Your task to perform on an android device: find snoozed emails in the gmail app Image 0: 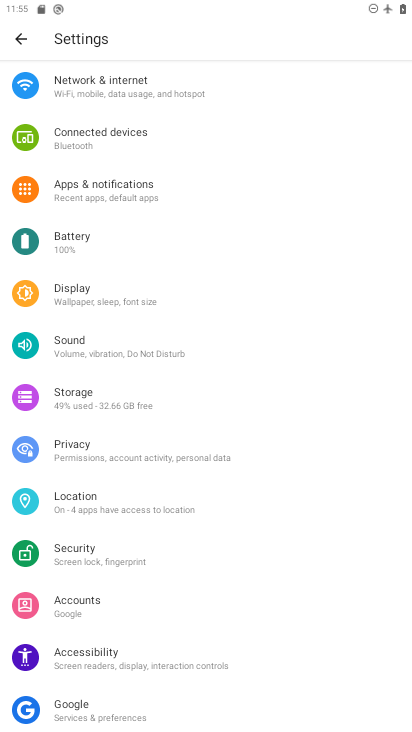
Step 0: press home button
Your task to perform on an android device: find snoozed emails in the gmail app Image 1: 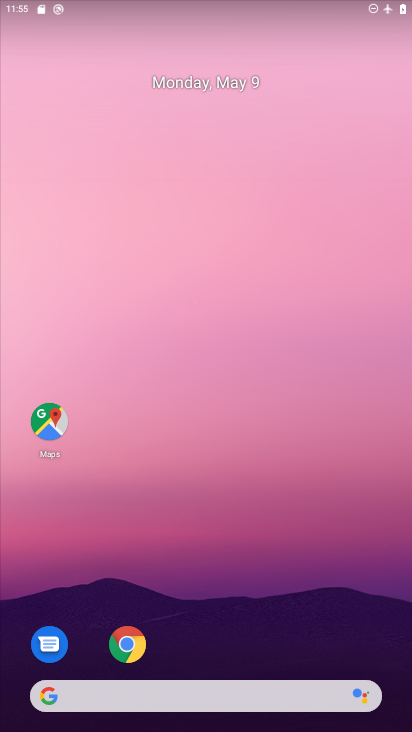
Step 1: drag from (261, 617) to (266, 206)
Your task to perform on an android device: find snoozed emails in the gmail app Image 2: 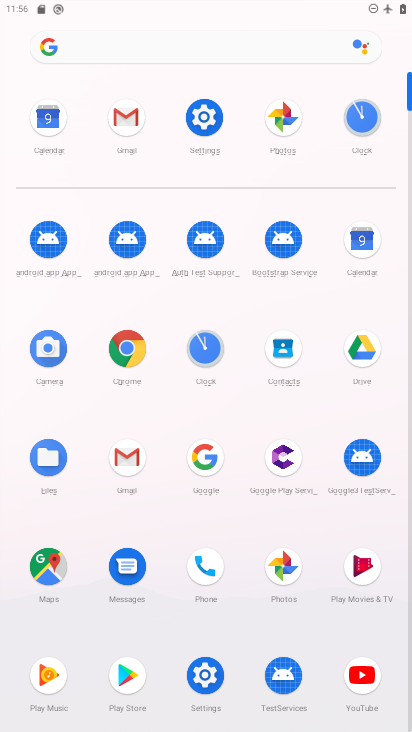
Step 2: click (119, 126)
Your task to perform on an android device: find snoozed emails in the gmail app Image 3: 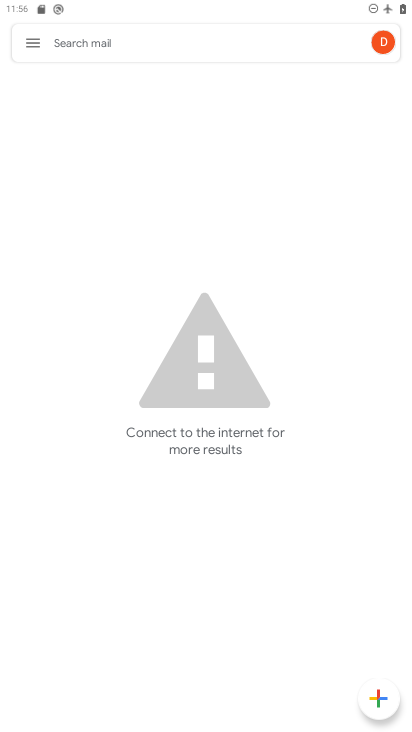
Step 3: click (44, 46)
Your task to perform on an android device: find snoozed emails in the gmail app Image 4: 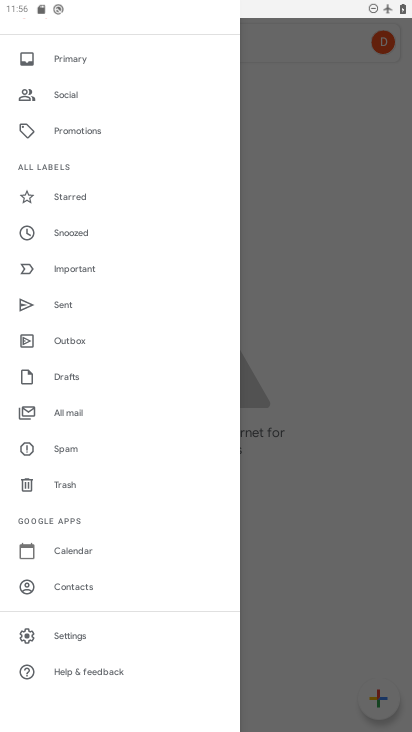
Step 4: click (97, 230)
Your task to perform on an android device: find snoozed emails in the gmail app Image 5: 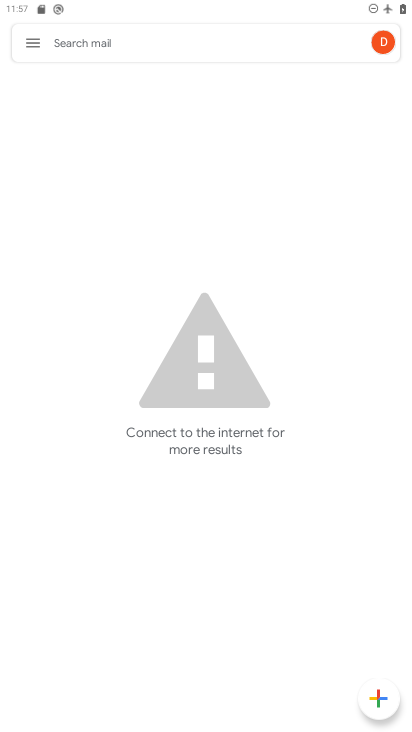
Step 5: task complete